Your task to perform on an android device: change notification settings in the gmail app Image 0: 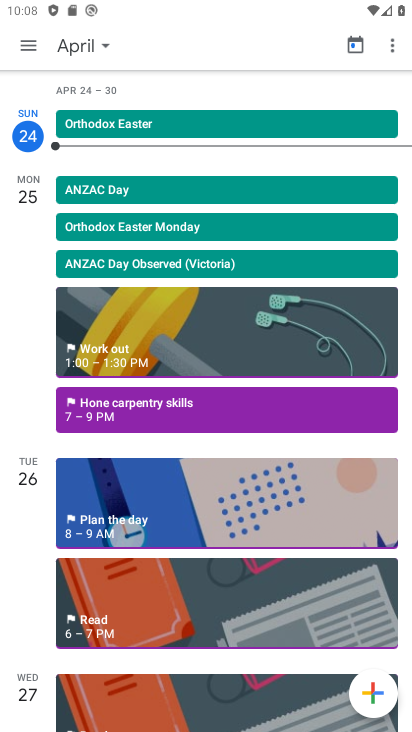
Step 0: press back button
Your task to perform on an android device: change notification settings in the gmail app Image 1: 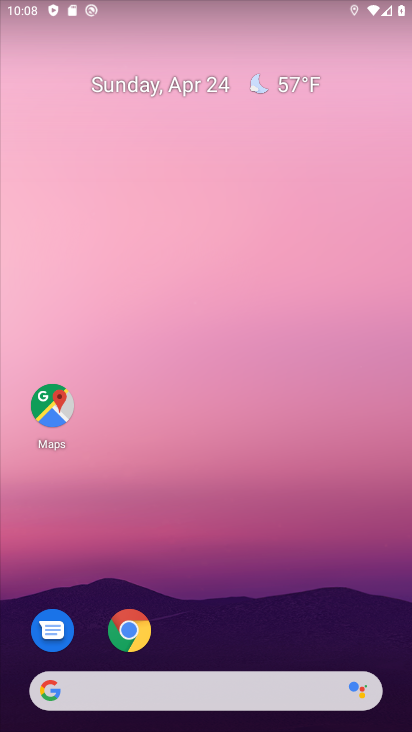
Step 1: drag from (198, 248) to (184, 68)
Your task to perform on an android device: change notification settings in the gmail app Image 2: 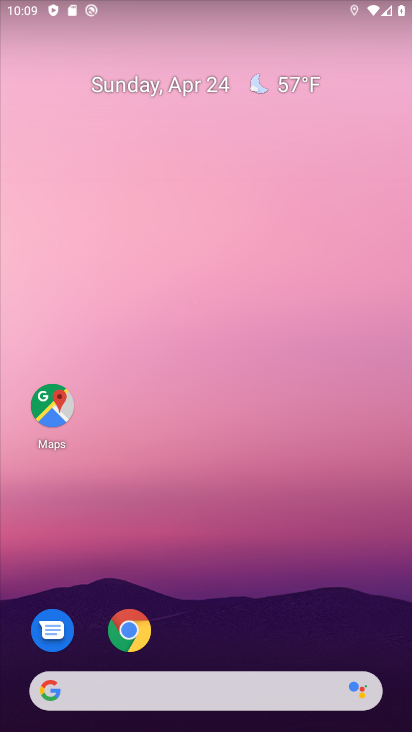
Step 2: drag from (223, 537) to (298, 5)
Your task to perform on an android device: change notification settings in the gmail app Image 3: 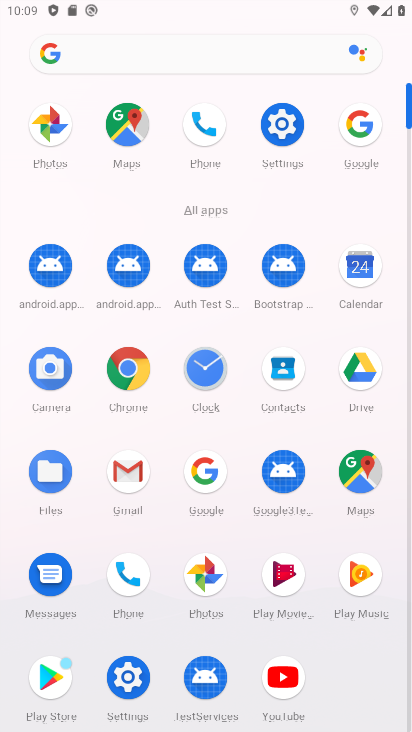
Step 3: click (130, 472)
Your task to perform on an android device: change notification settings in the gmail app Image 4: 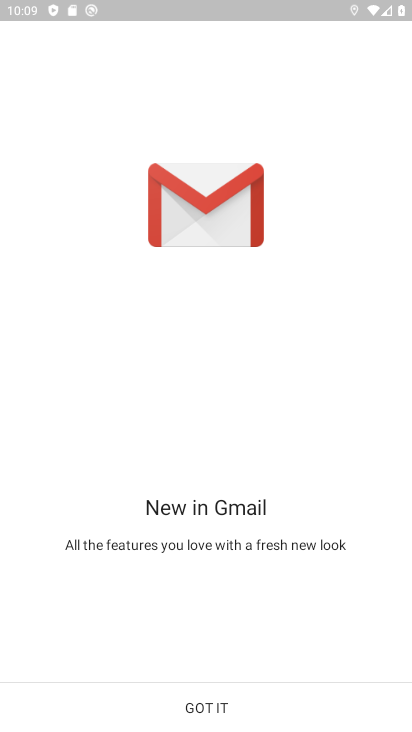
Step 4: click (203, 704)
Your task to perform on an android device: change notification settings in the gmail app Image 5: 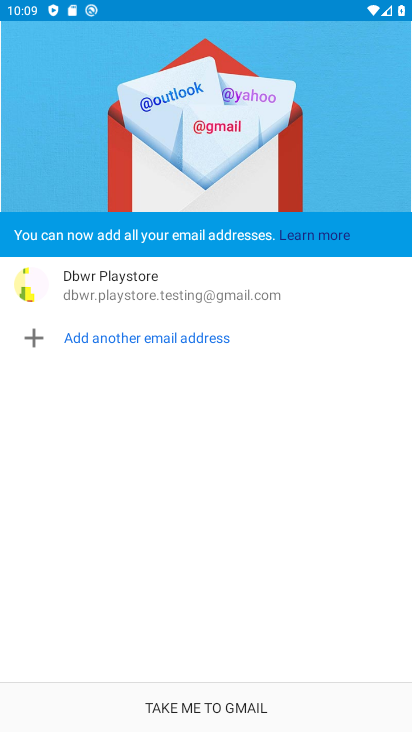
Step 5: click (203, 704)
Your task to perform on an android device: change notification settings in the gmail app Image 6: 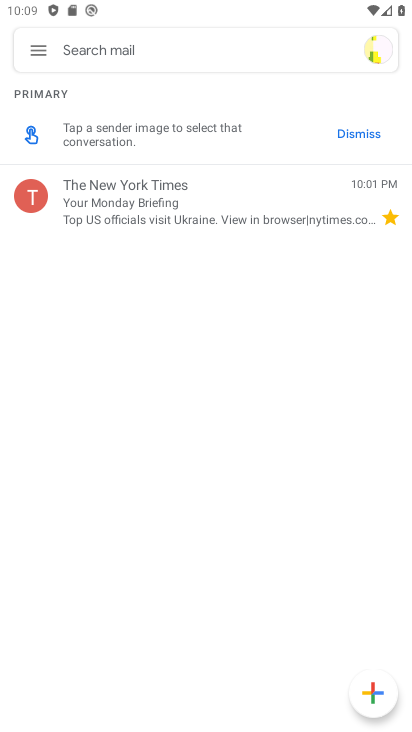
Step 6: click (41, 52)
Your task to perform on an android device: change notification settings in the gmail app Image 7: 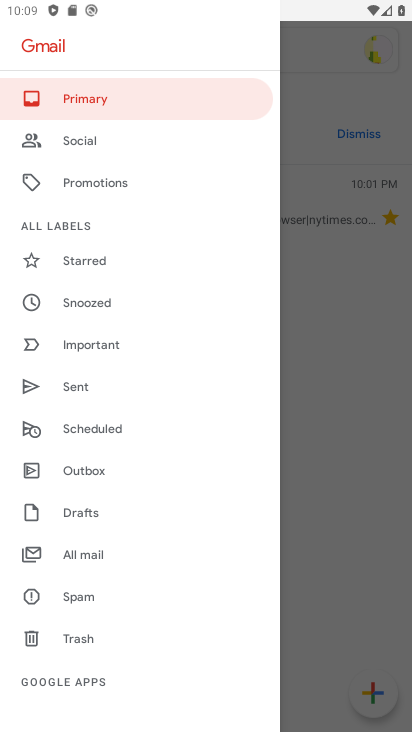
Step 7: drag from (113, 587) to (150, 478)
Your task to perform on an android device: change notification settings in the gmail app Image 8: 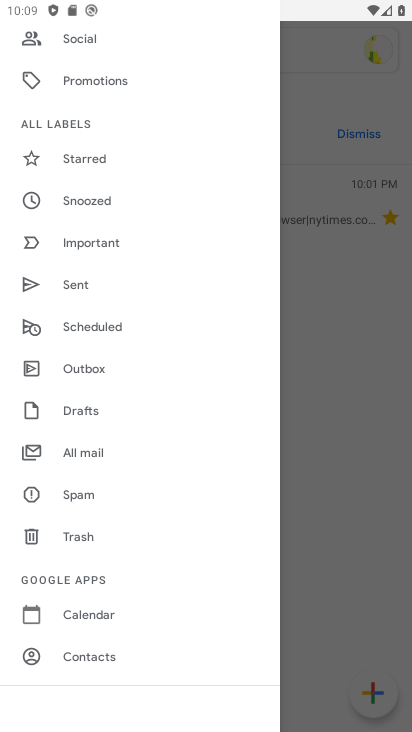
Step 8: drag from (125, 539) to (138, 421)
Your task to perform on an android device: change notification settings in the gmail app Image 9: 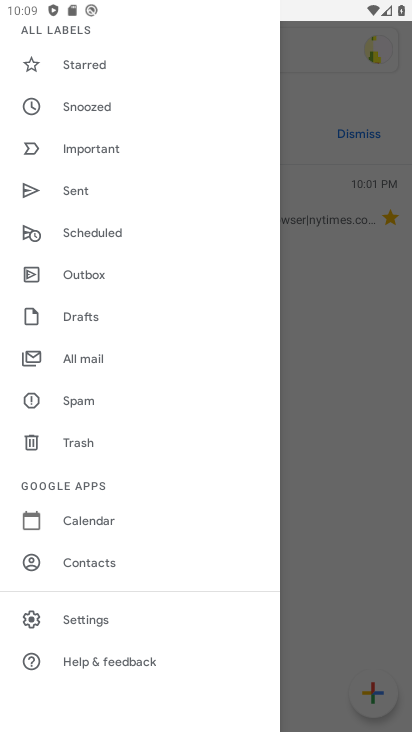
Step 9: click (89, 620)
Your task to perform on an android device: change notification settings in the gmail app Image 10: 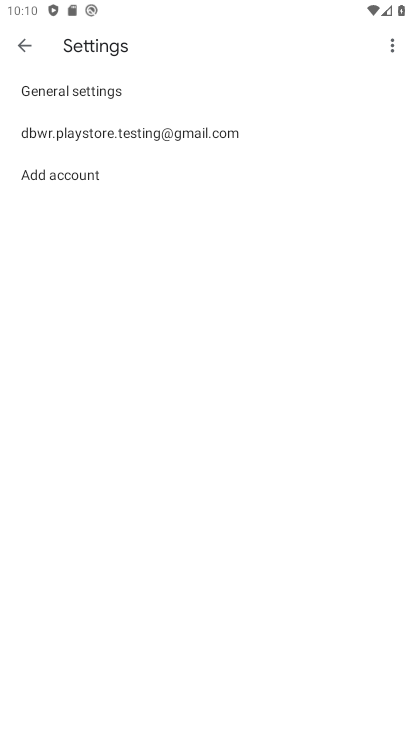
Step 10: click (163, 130)
Your task to perform on an android device: change notification settings in the gmail app Image 11: 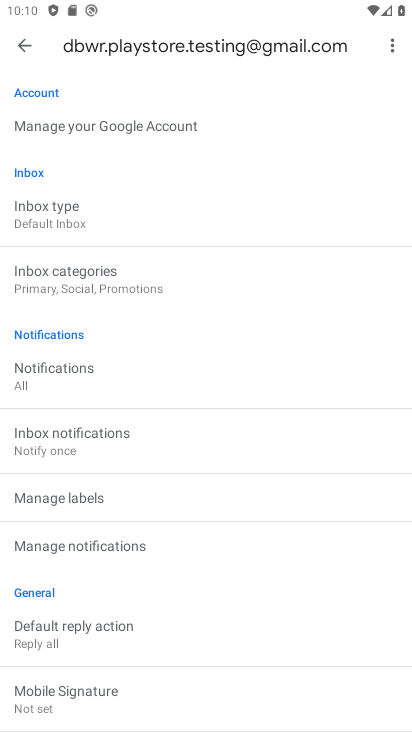
Step 11: click (91, 545)
Your task to perform on an android device: change notification settings in the gmail app Image 12: 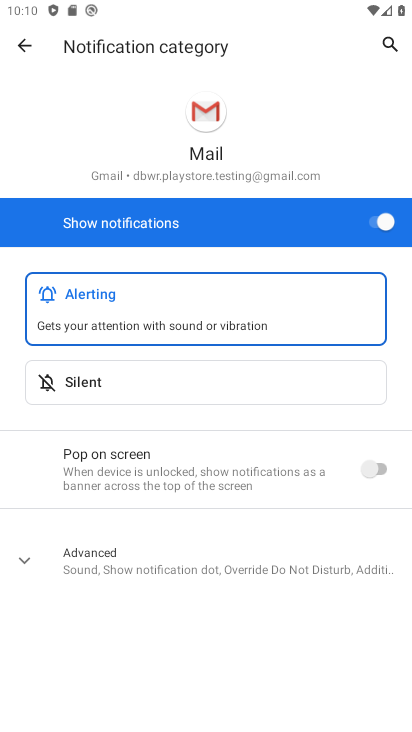
Step 12: click (392, 224)
Your task to perform on an android device: change notification settings in the gmail app Image 13: 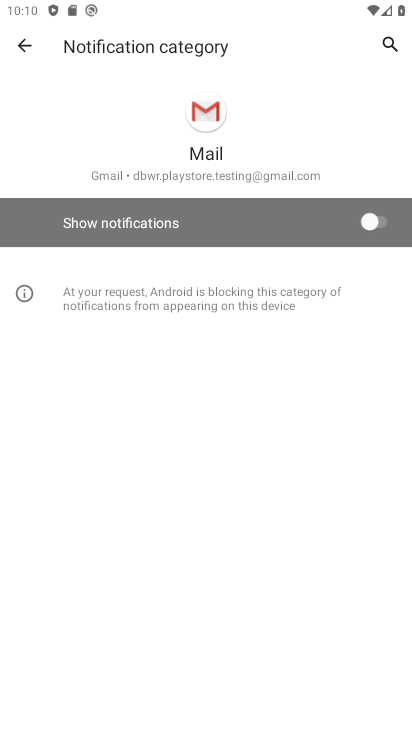
Step 13: task complete